Your task to perform on an android device: turn pop-ups on in chrome Image 0: 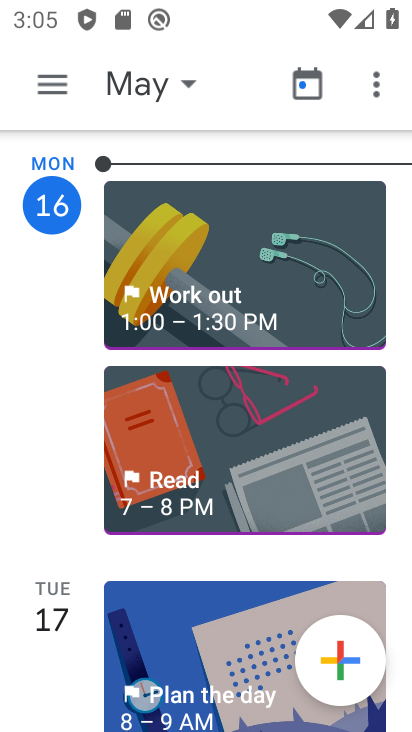
Step 0: press home button
Your task to perform on an android device: turn pop-ups on in chrome Image 1: 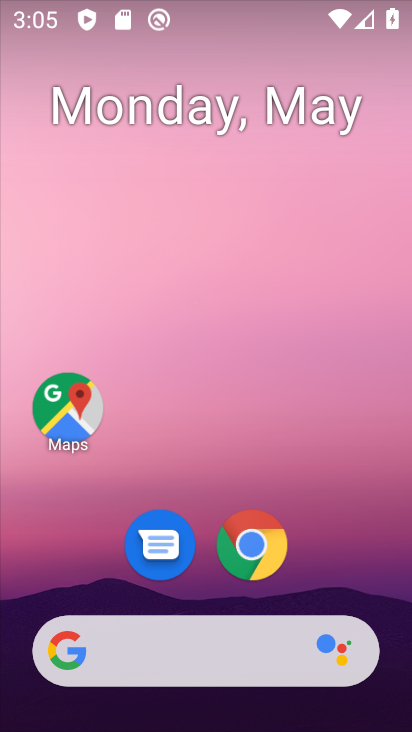
Step 1: click (279, 550)
Your task to perform on an android device: turn pop-ups on in chrome Image 2: 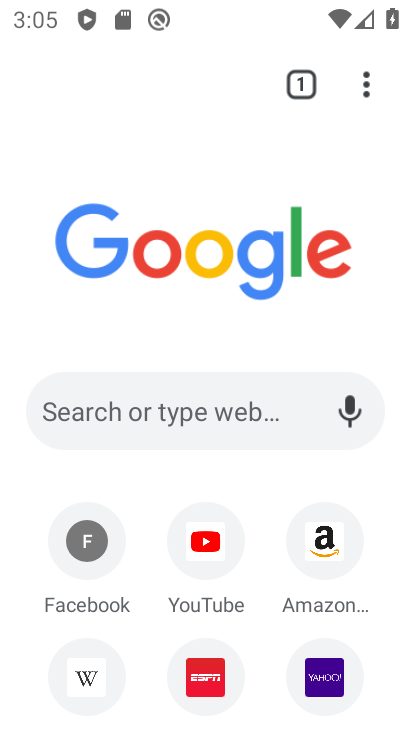
Step 2: drag from (365, 89) to (182, 614)
Your task to perform on an android device: turn pop-ups on in chrome Image 3: 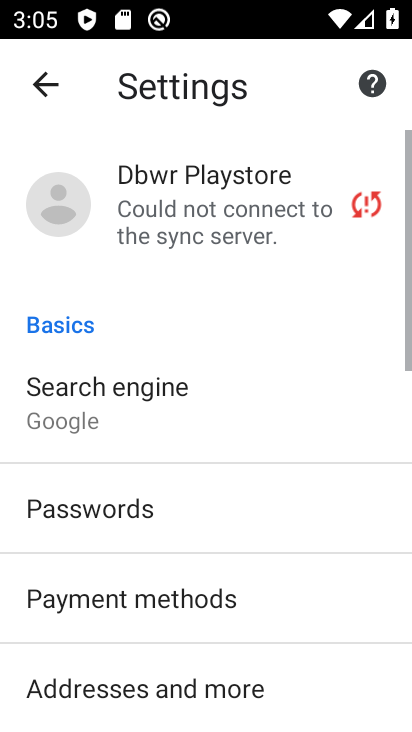
Step 3: drag from (182, 607) to (184, 204)
Your task to perform on an android device: turn pop-ups on in chrome Image 4: 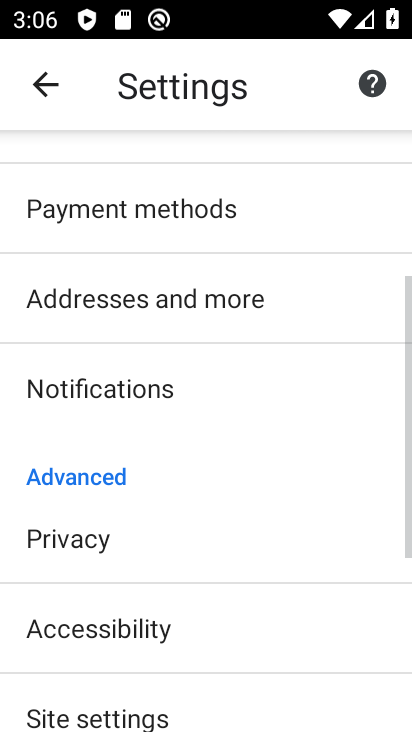
Step 4: drag from (185, 659) to (187, 313)
Your task to perform on an android device: turn pop-ups on in chrome Image 5: 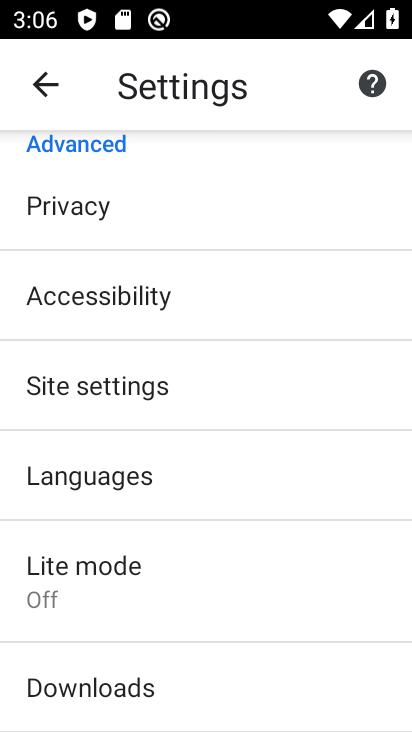
Step 5: click (154, 406)
Your task to perform on an android device: turn pop-ups on in chrome Image 6: 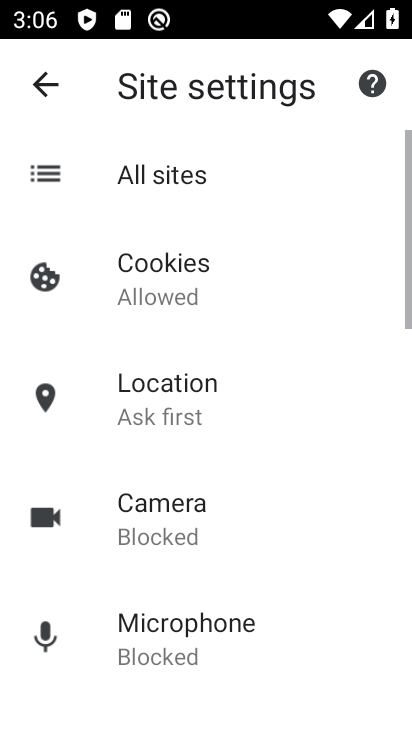
Step 6: drag from (241, 627) to (242, 209)
Your task to perform on an android device: turn pop-ups on in chrome Image 7: 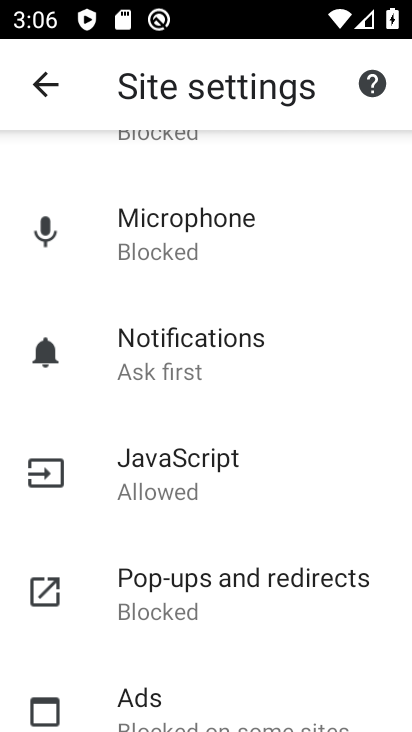
Step 7: click (253, 589)
Your task to perform on an android device: turn pop-ups on in chrome Image 8: 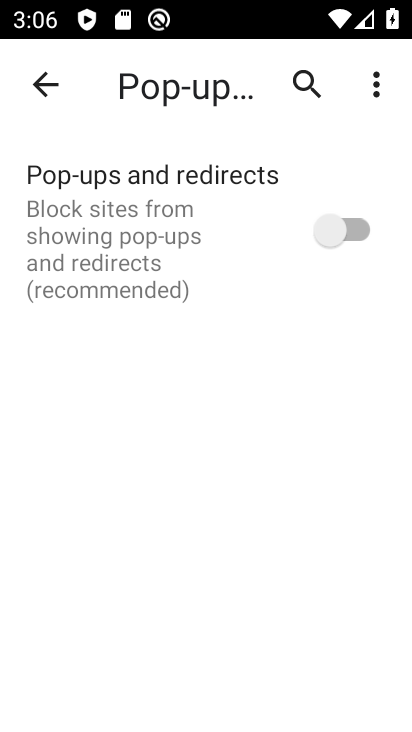
Step 8: click (360, 220)
Your task to perform on an android device: turn pop-ups on in chrome Image 9: 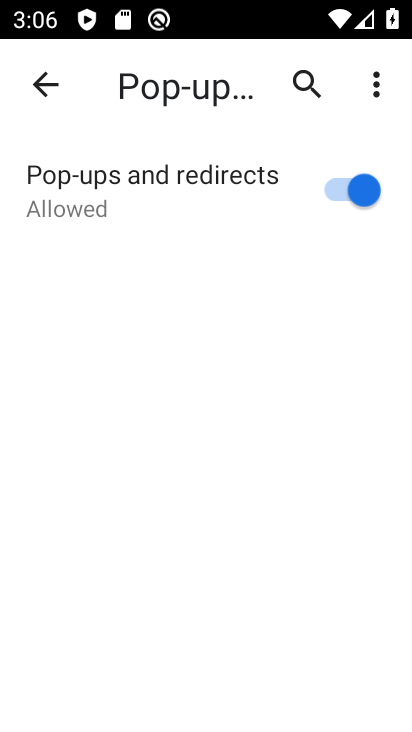
Step 9: task complete